Your task to perform on an android device: turn on sleep mode Image 0: 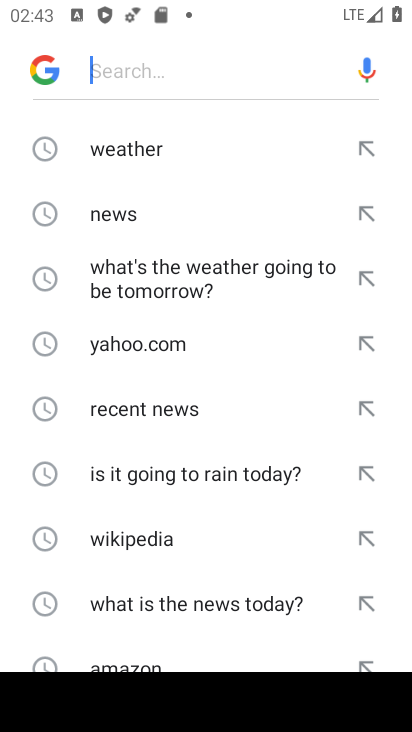
Step 0: press home button
Your task to perform on an android device: turn on sleep mode Image 1: 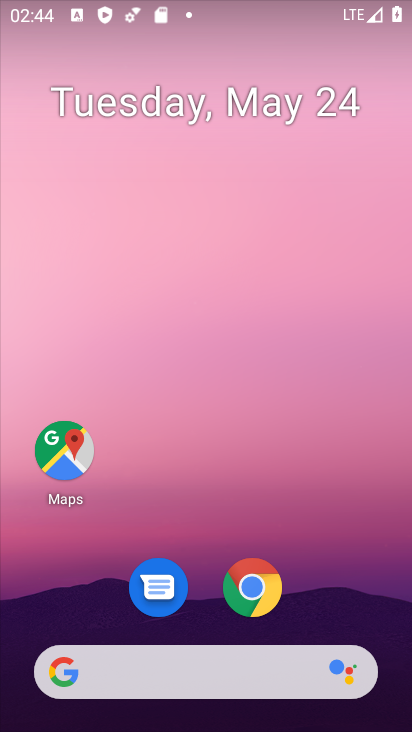
Step 1: drag from (248, 714) to (179, 16)
Your task to perform on an android device: turn on sleep mode Image 2: 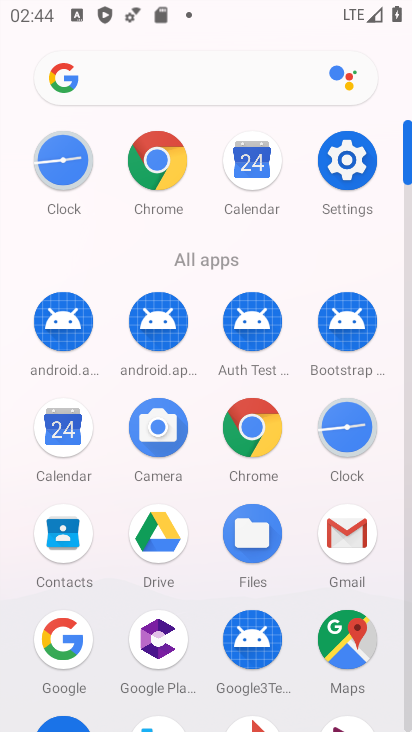
Step 2: click (354, 171)
Your task to perform on an android device: turn on sleep mode Image 3: 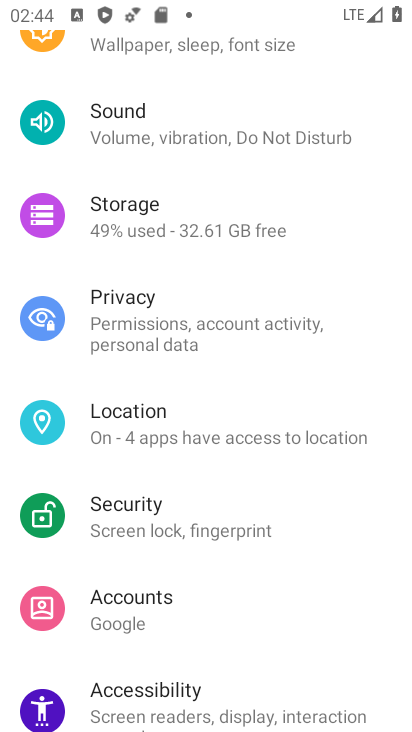
Step 3: click (236, 45)
Your task to perform on an android device: turn on sleep mode Image 4: 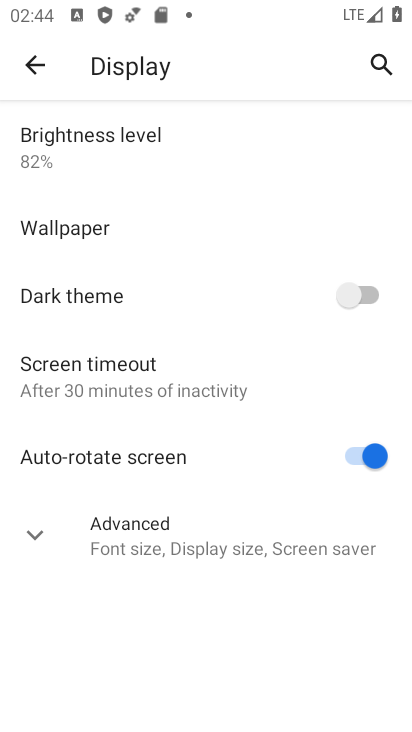
Step 4: task complete